Your task to perform on an android device: snooze an email in the gmail app Image 0: 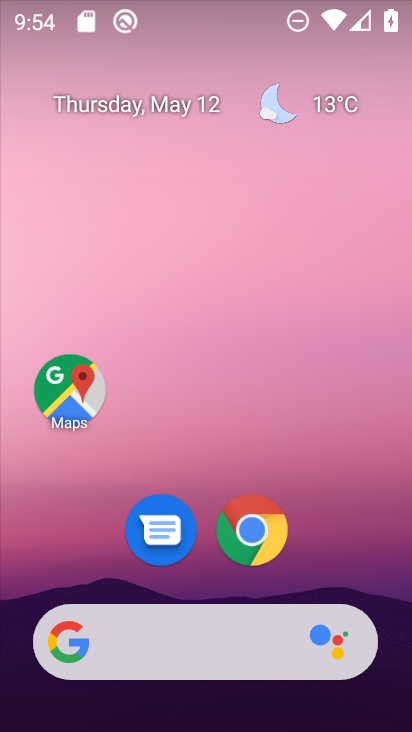
Step 0: drag from (327, 518) to (363, 115)
Your task to perform on an android device: snooze an email in the gmail app Image 1: 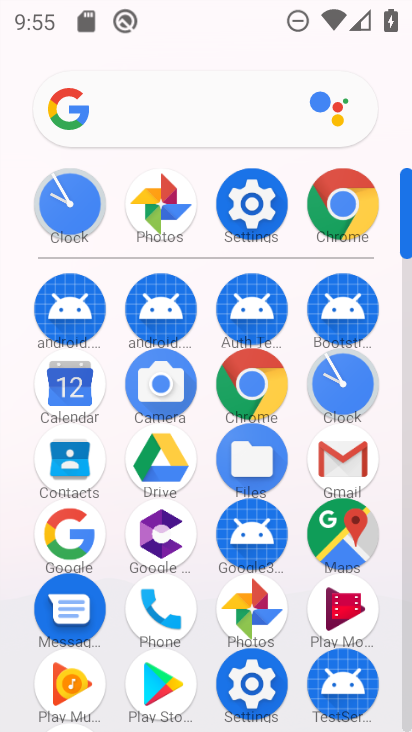
Step 1: click (334, 465)
Your task to perform on an android device: snooze an email in the gmail app Image 2: 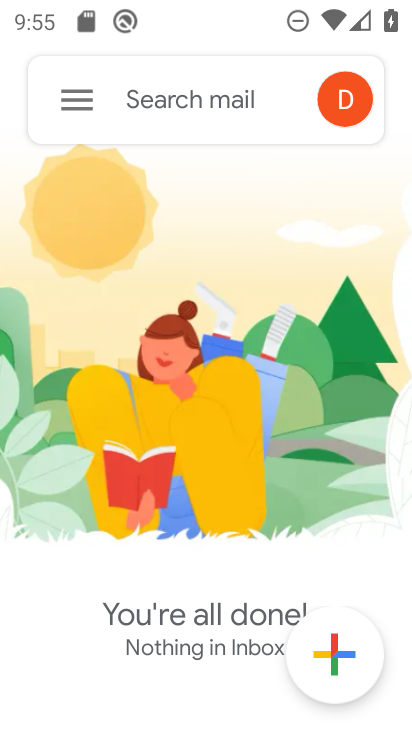
Step 2: click (86, 83)
Your task to perform on an android device: snooze an email in the gmail app Image 3: 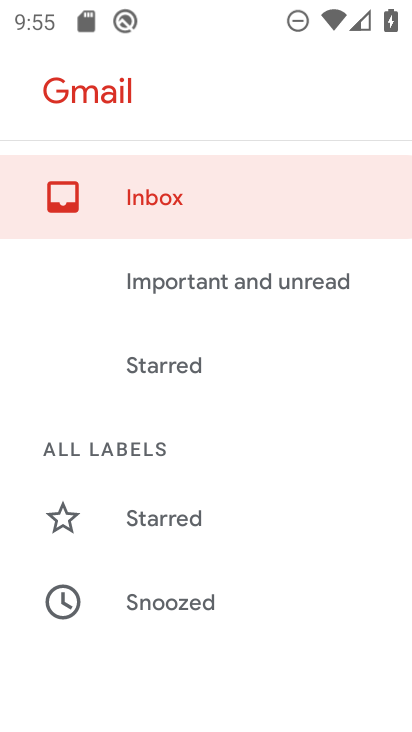
Step 3: click (317, 181)
Your task to perform on an android device: snooze an email in the gmail app Image 4: 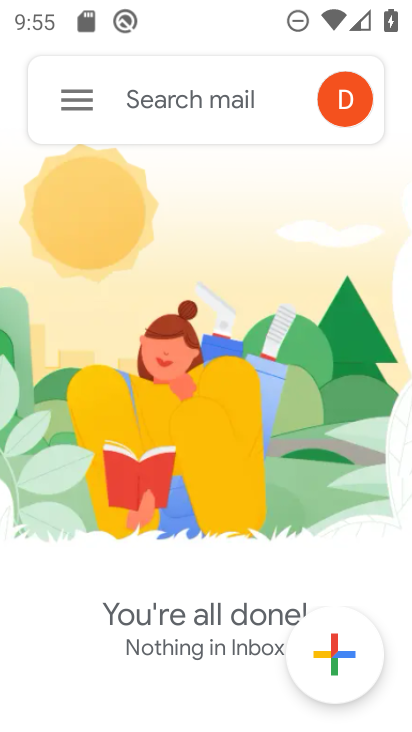
Step 4: click (83, 92)
Your task to perform on an android device: snooze an email in the gmail app Image 5: 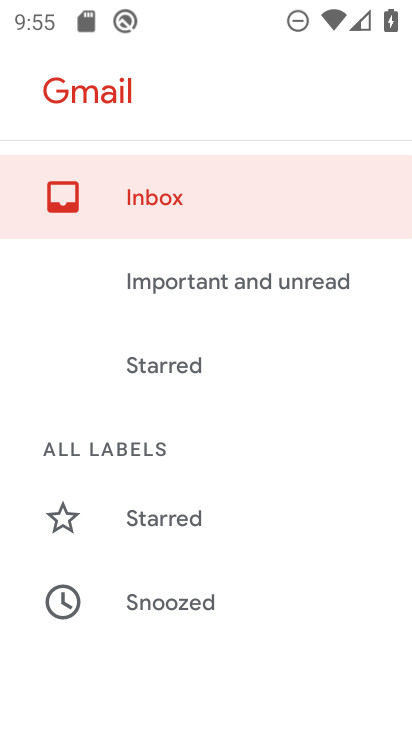
Step 5: drag from (256, 595) to (328, 189)
Your task to perform on an android device: snooze an email in the gmail app Image 6: 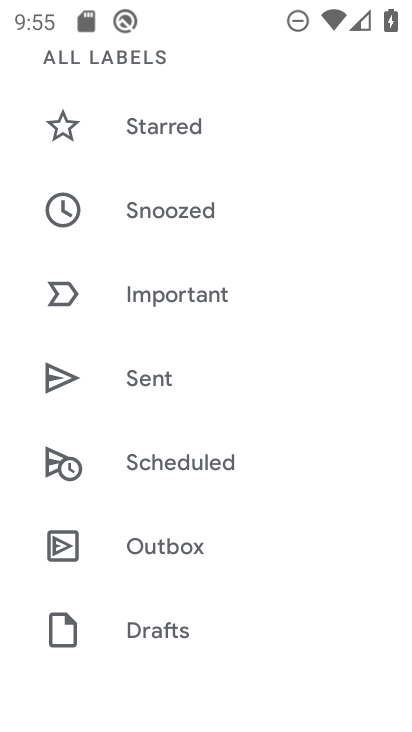
Step 6: drag from (261, 536) to (319, 225)
Your task to perform on an android device: snooze an email in the gmail app Image 7: 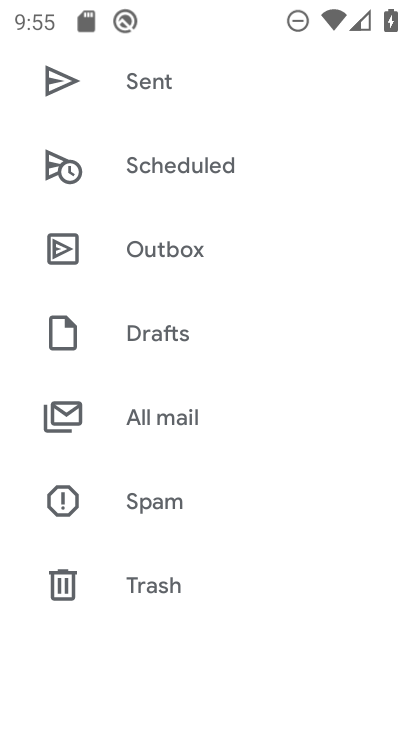
Step 7: click (237, 408)
Your task to perform on an android device: snooze an email in the gmail app Image 8: 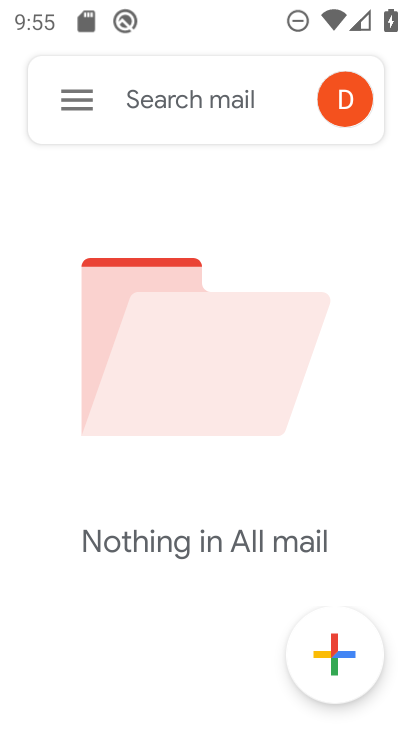
Step 8: task complete